Your task to perform on an android device: Go to calendar. Show me events next week Image 0: 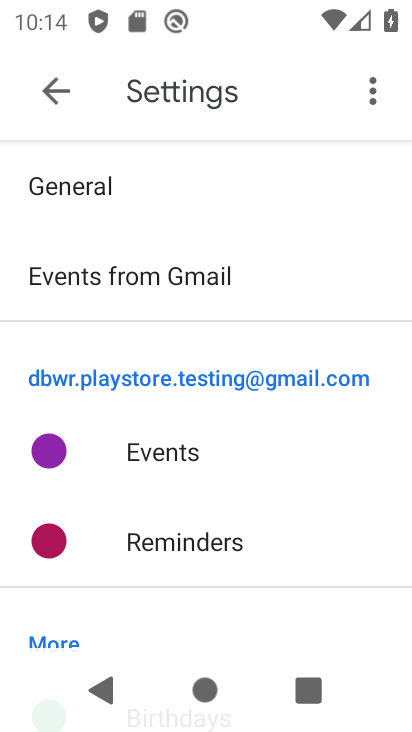
Step 0: press home button
Your task to perform on an android device: Go to calendar. Show me events next week Image 1: 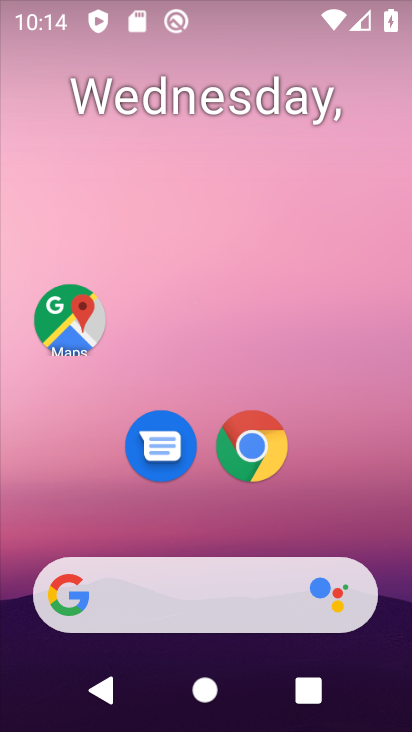
Step 1: drag from (335, 520) to (319, 167)
Your task to perform on an android device: Go to calendar. Show me events next week Image 2: 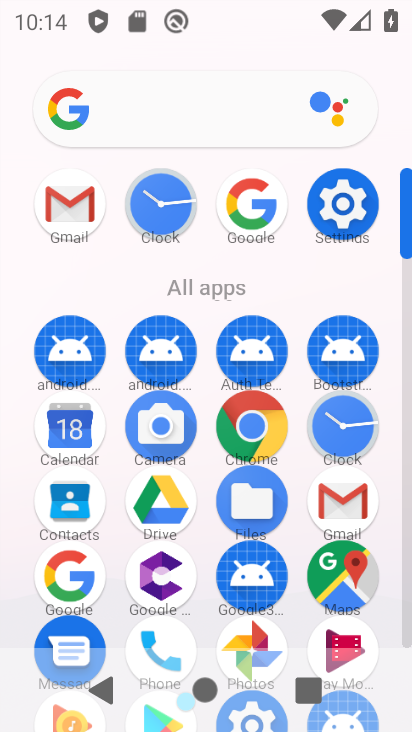
Step 2: click (48, 446)
Your task to perform on an android device: Go to calendar. Show me events next week Image 3: 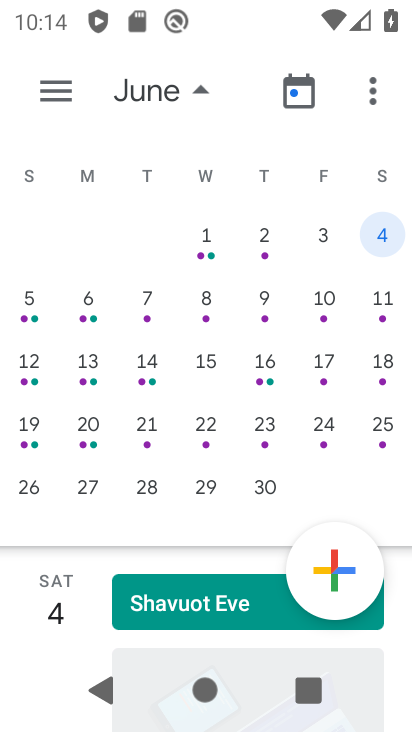
Step 3: drag from (159, 419) to (375, 413)
Your task to perform on an android device: Go to calendar. Show me events next week Image 4: 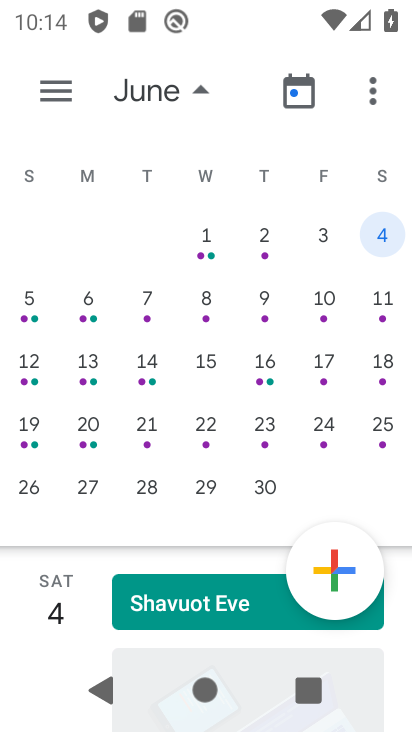
Step 4: click (14, 415)
Your task to perform on an android device: Go to calendar. Show me events next week Image 5: 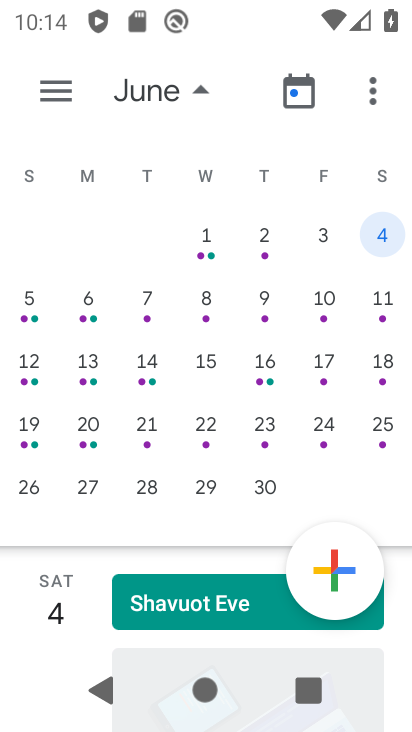
Step 5: drag from (39, 417) to (388, 447)
Your task to perform on an android device: Go to calendar. Show me events next week Image 6: 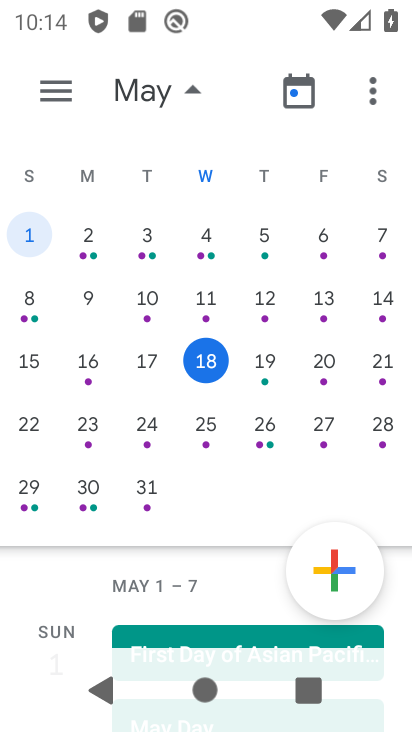
Step 6: click (23, 424)
Your task to perform on an android device: Go to calendar. Show me events next week Image 7: 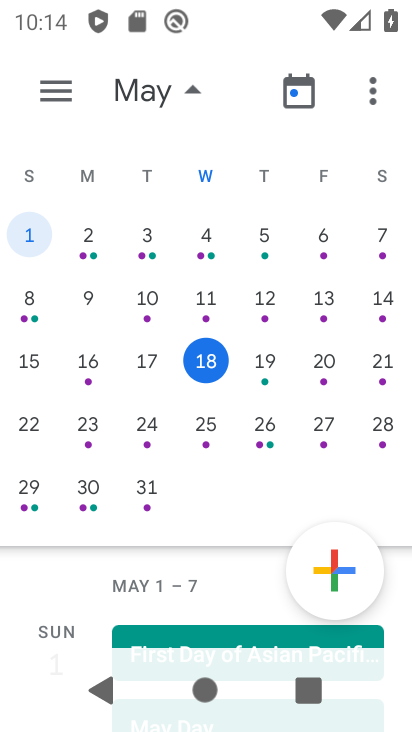
Step 7: click (84, 429)
Your task to perform on an android device: Go to calendar. Show me events next week Image 8: 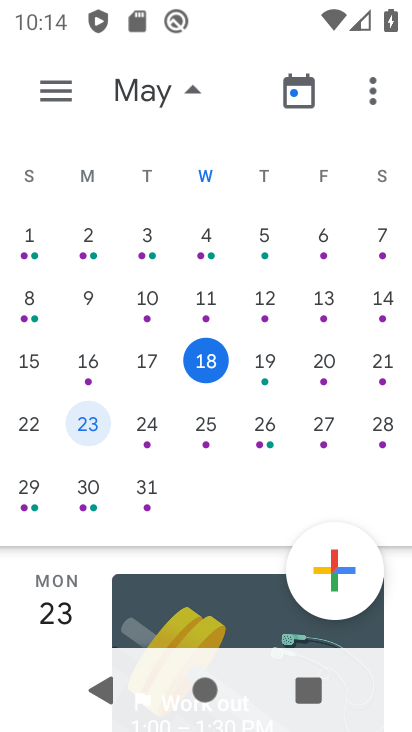
Step 8: click (150, 427)
Your task to perform on an android device: Go to calendar. Show me events next week Image 9: 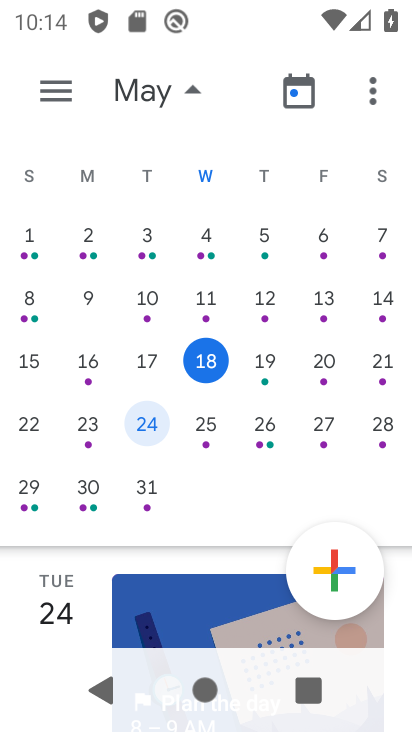
Step 9: click (218, 429)
Your task to perform on an android device: Go to calendar. Show me events next week Image 10: 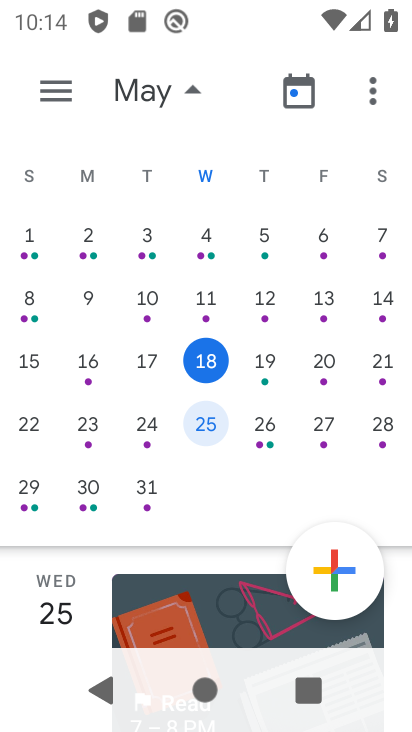
Step 10: click (251, 430)
Your task to perform on an android device: Go to calendar. Show me events next week Image 11: 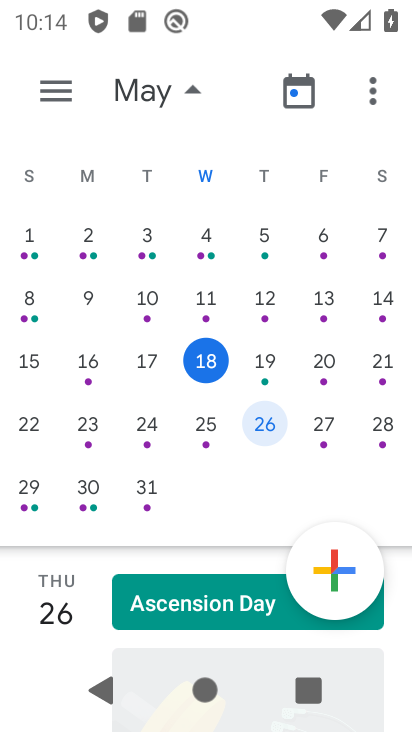
Step 11: click (321, 440)
Your task to perform on an android device: Go to calendar. Show me events next week Image 12: 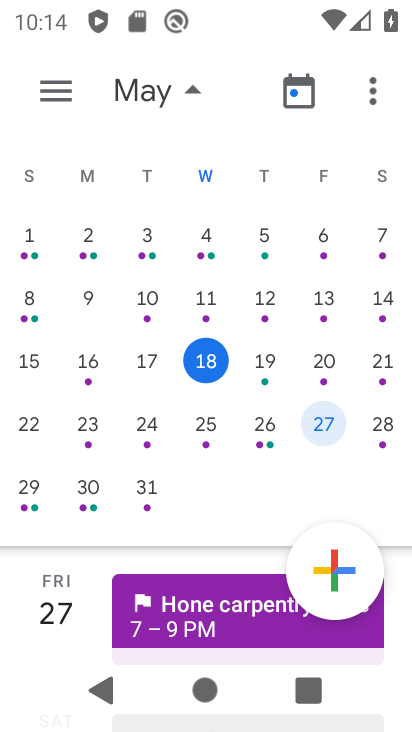
Step 12: click (383, 440)
Your task to perform on an android device: Go to calendar. Show me events next week Image 13: 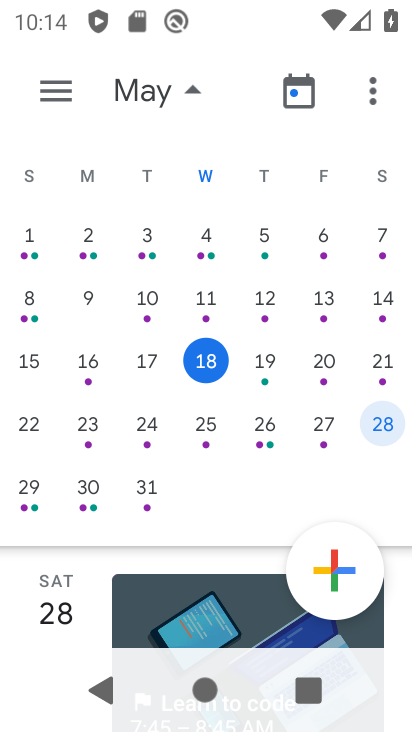
Step 13: task complete